Your task to perform on an android device: turn notification dots on Image 0: 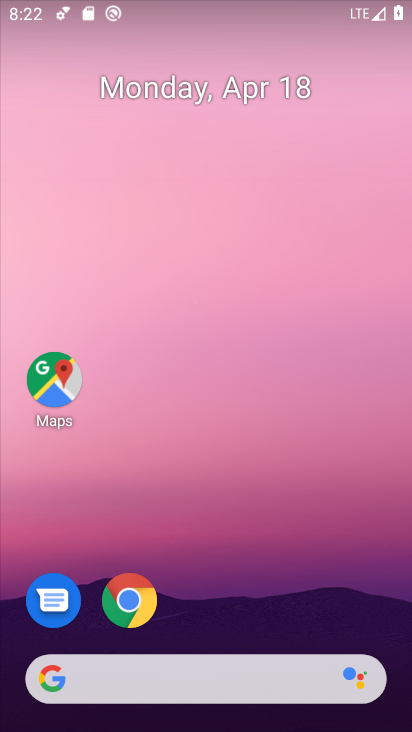
Step 0: drag from (361, 557) to (285, 33)
Your task to perform on an android device: turn notification dots on Image 1: 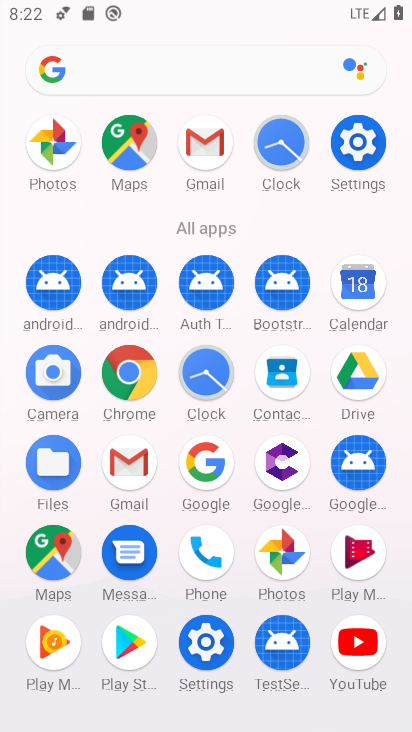
Step 1: click (356, 139)
Your task to perform on an android device: turn notification dots on Image 2: 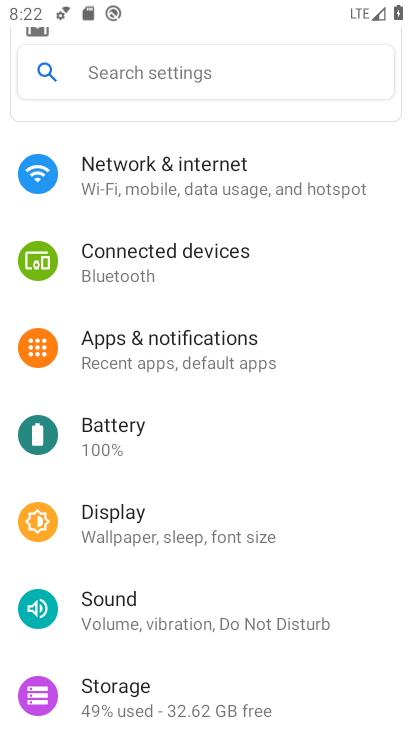
Step 2: click (232, 340)
Your task to perform on an android device: turn notification dots on Image 3: 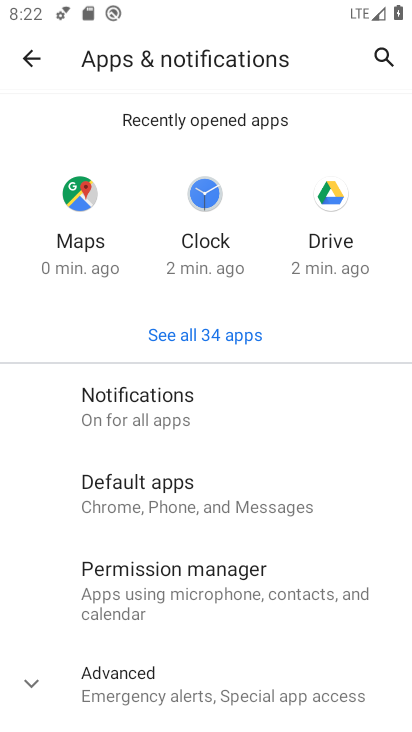
Step 3: click (224, 418)
Your task to perform on an android device: turn notification dots on Image 4: 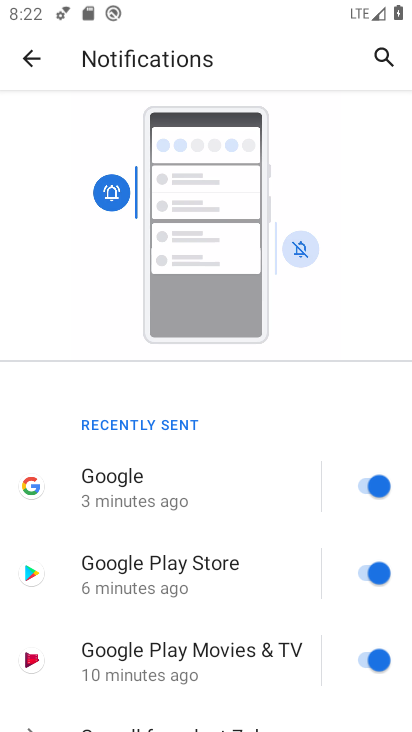
Step 4: drag from (293, 564) to (255, 175)
Your task to perform on an android device: turn notification dots on Image 5: 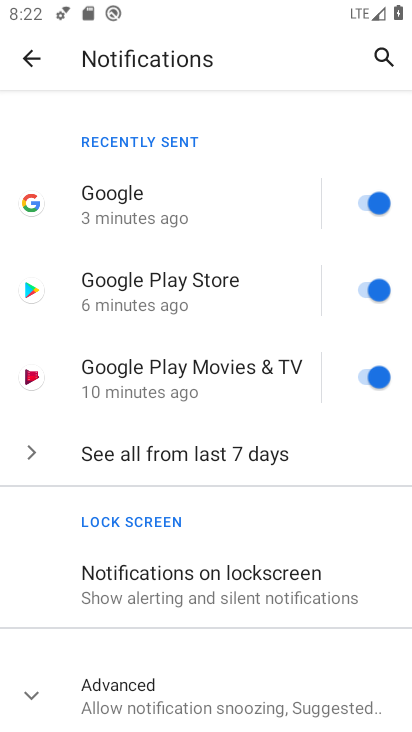
Step 5: drag from (261, 513) to (267, 174)
Your task to perform on an android device: turn notification dots on Image 6: 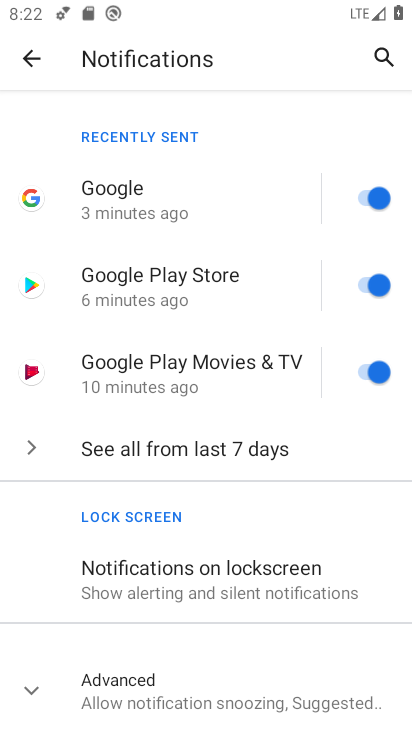
Step 6: click (252, 577)
Your task to perform on an android device: turn notification dots on Image 7: 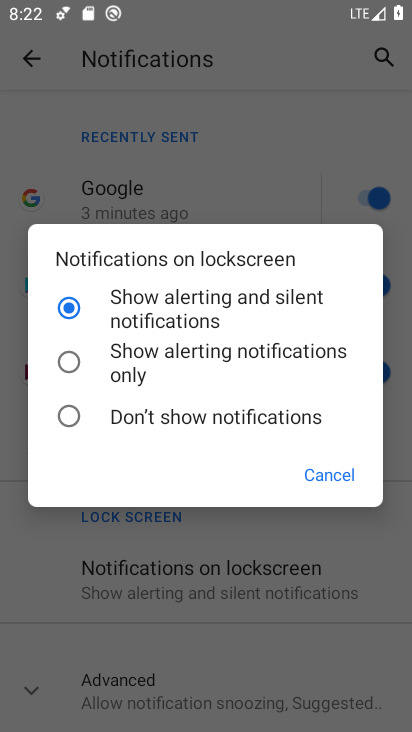
Step 7: click (211, 665)
Your task to perform on an android device: turn notification dots on Image 8: 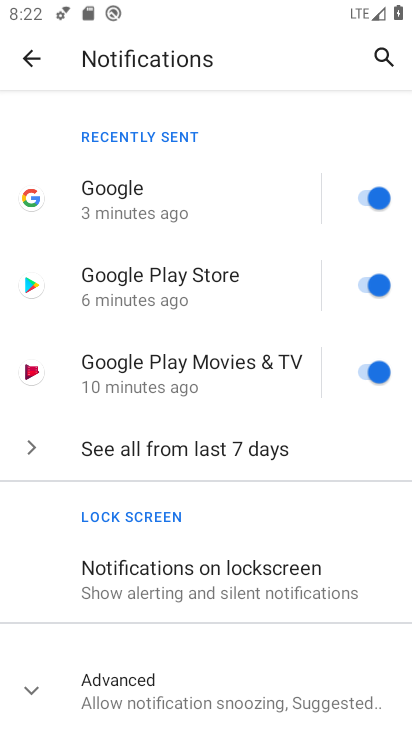
Step 8: click (40, 689)
Your task to perform on an android device: turn notification dots on Image 9: 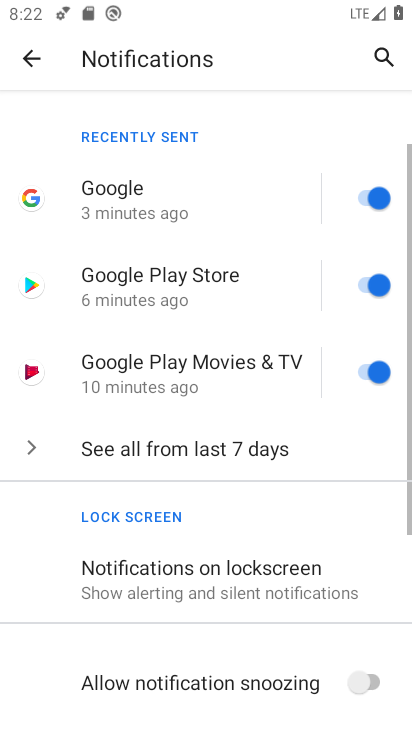
Step 9: drag from (189, 632) to (191, 193)
Your task to perform on an android device: turn notification dots on Image 10: 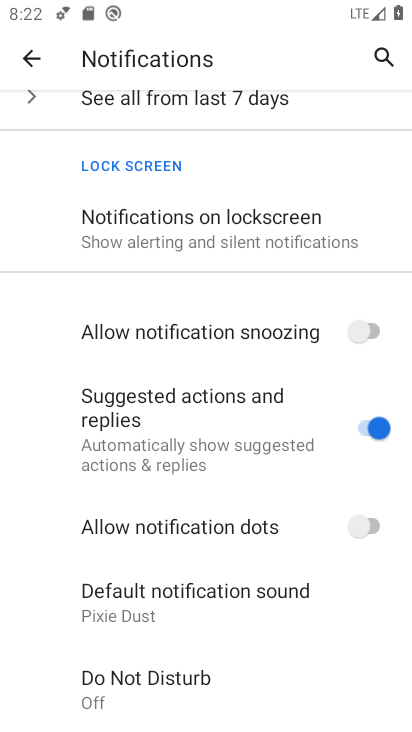
Step 10: click (356, 520)
Your task to perform on an android device: turn notification dots on Image 11: 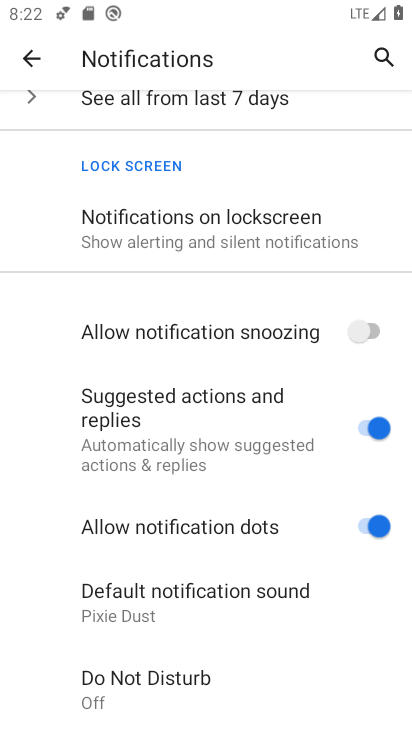
Step 11: task complete